Your task to perform on an android device: Open Yahoo.com Image 0: 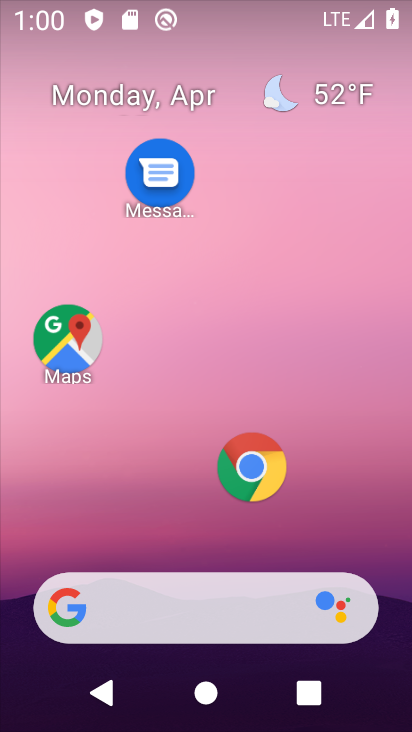
Step 0: click (239, 465)
Your task to perform on an android device: Open Yahoo.com Image 1: 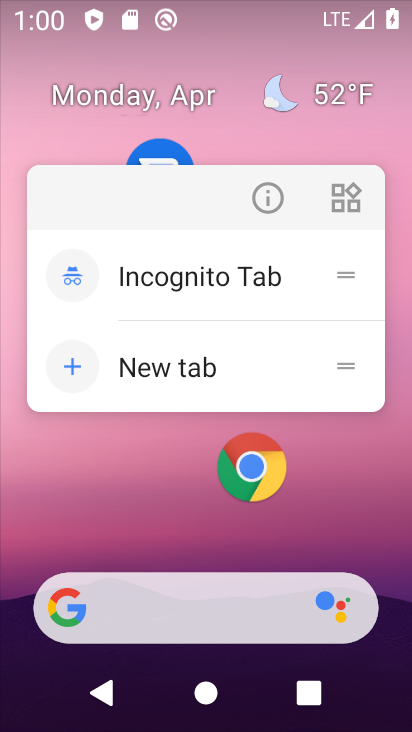
Step 1: click (259, 460)
Your task to perform on an android device: Open Yahoo.com Image 2: 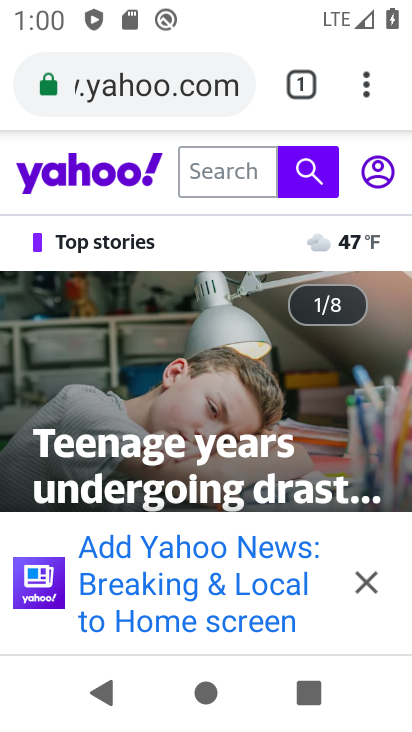
Step 2: task complete